Your task to perform on an android device: Open calendar and show me the second week of next month Image 0: 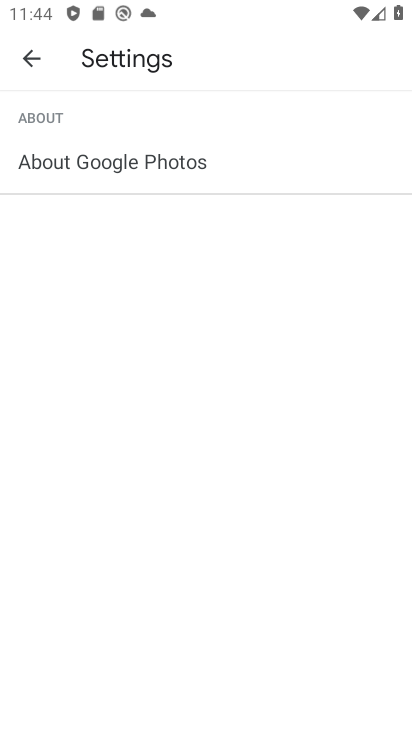
Step 0: press home button
Your task to perform on an android device: Open calendar and show me the second week of next month Image 1: 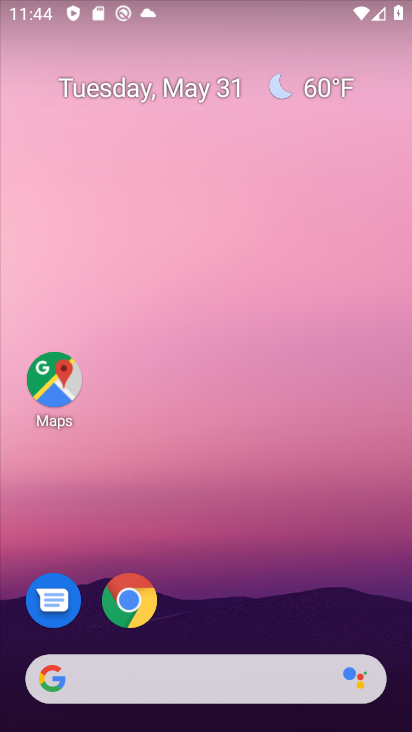
Step 1: drag from (349, 621) to (357, 112)
Your task to perform on an android device: Open calendar and show me the second week of next month Image 2: 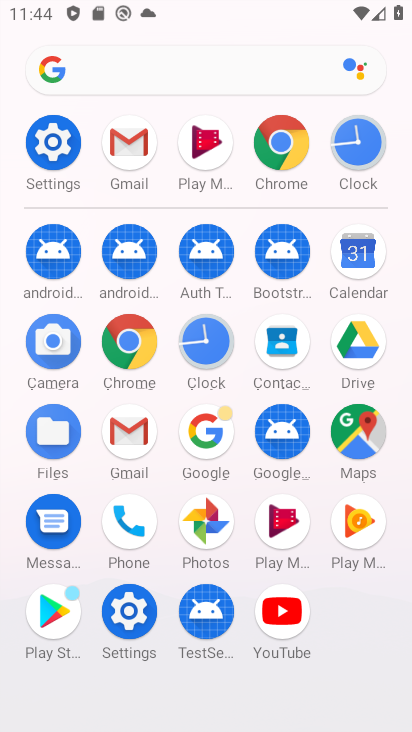
Step 2: click (347, 280)
Your task to perform on an android device: Open calendar and show me the second week of next month Image 3: 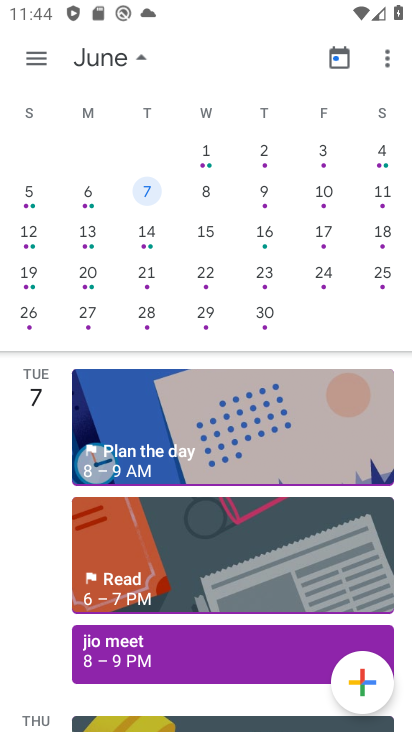
Step 3: press home button
Your task to perform on an android device: Open calendar and show me the second week of next month Image 4: 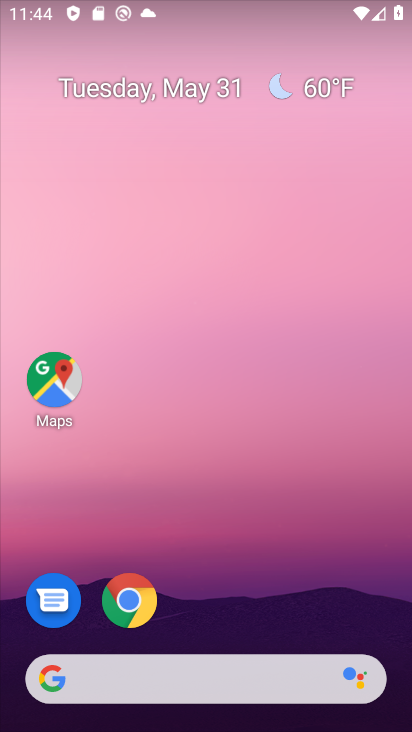
Step 4: drag from (341, 599) to (334, 138)
Your task to perform on an android device: Open calendar and show me the second week of next month Image 5: 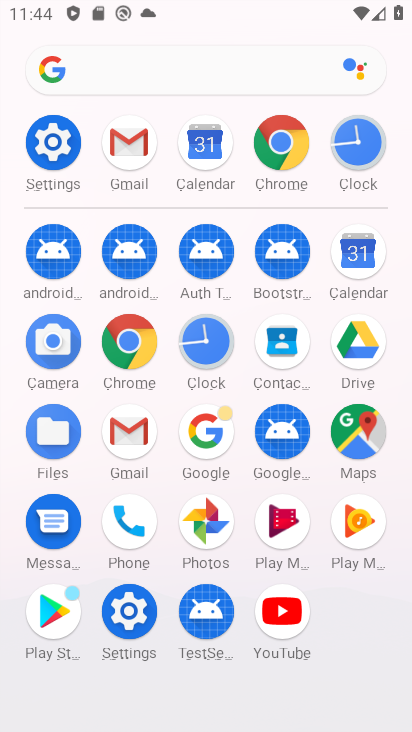
Step 5: click (352, 269)
Your task to perform on an android device: Open calendar and show me the second week of next month Image 6: 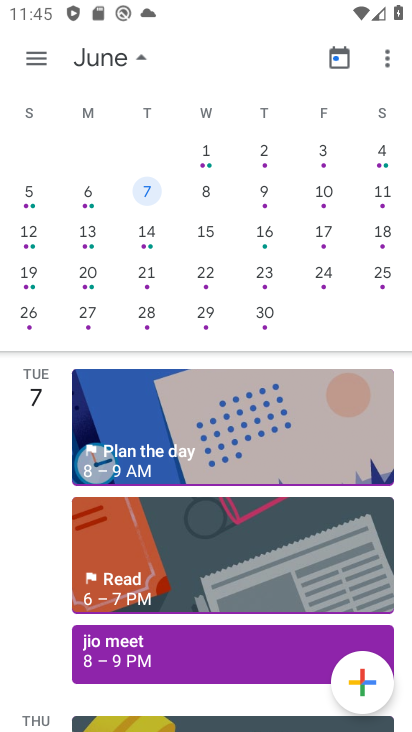
Step 6: task complete